Your task to perform on an android device: Go to sound settings Image 0: 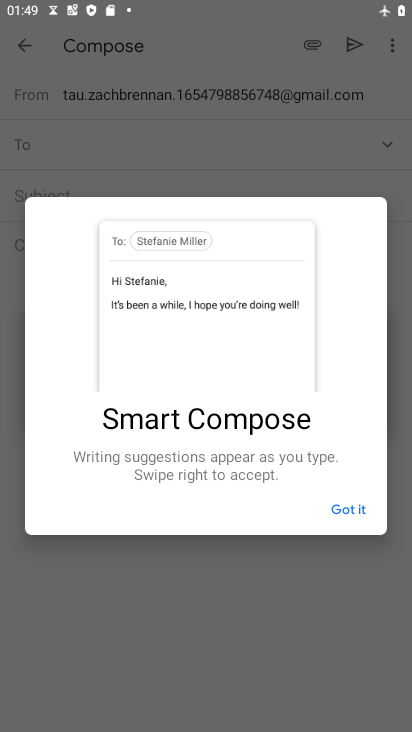
Step 0: press home button
Your task to perform on an android device: Go to sound settings Image 1: 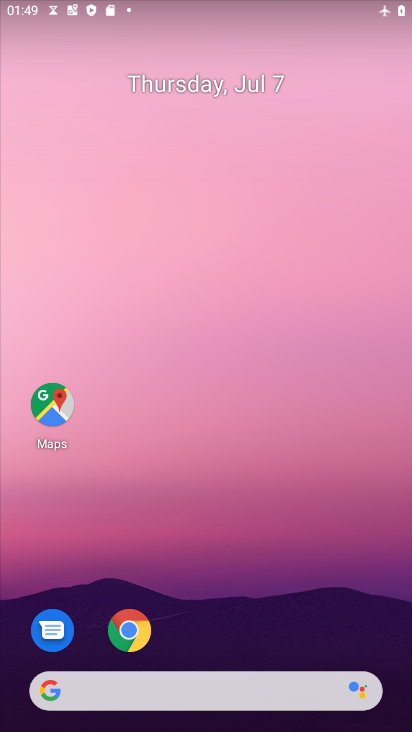
Step 1: drag from (300, 603) to (215, 181)
Your task to perform on an android device: Go to sound settings Image 2: 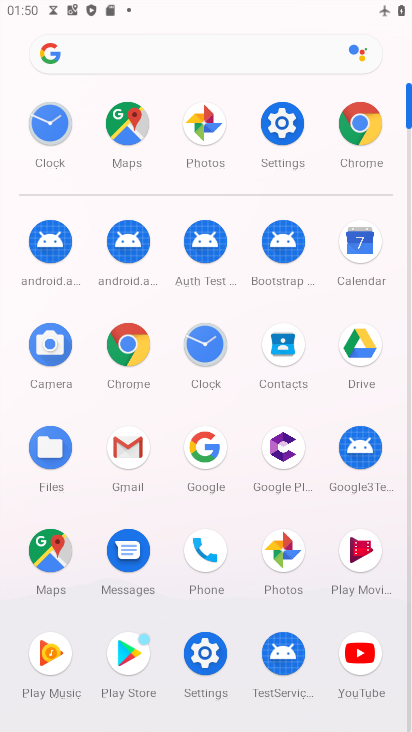
Step 2: click (285, 134)
Your task to perform on an android device: Go to sound settings Image 3: 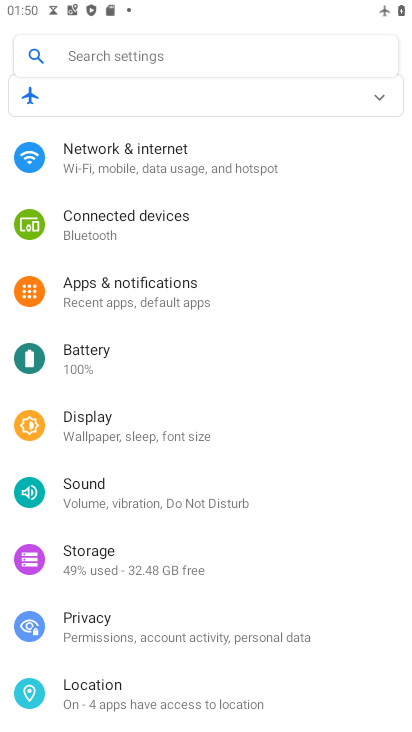
Step 3: click (122, 502)
Your task to perform on an android device: Go to sound settings Image 4: 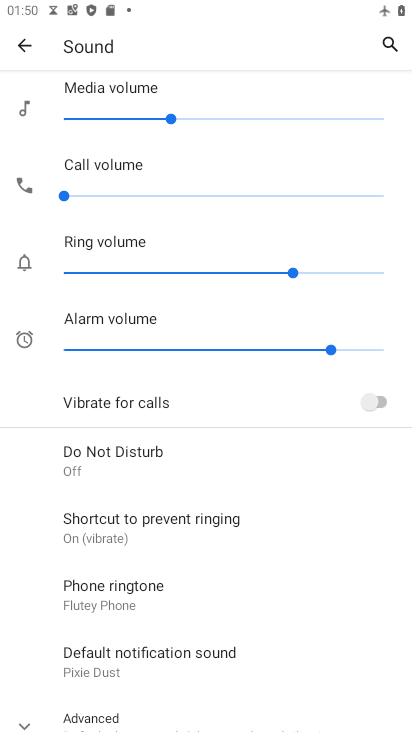
Step 4: task complete